Your task to perform on an android device: Open Google Maps Image 0: 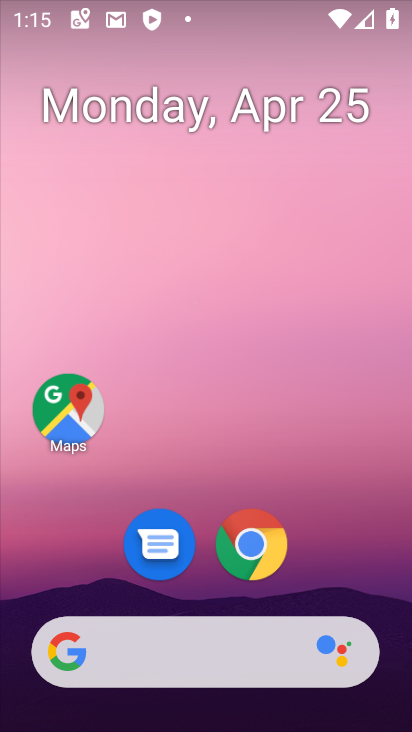
Step 0: click (79, 430)
Your task to perform on an android device: Open Google Maps Image 1: 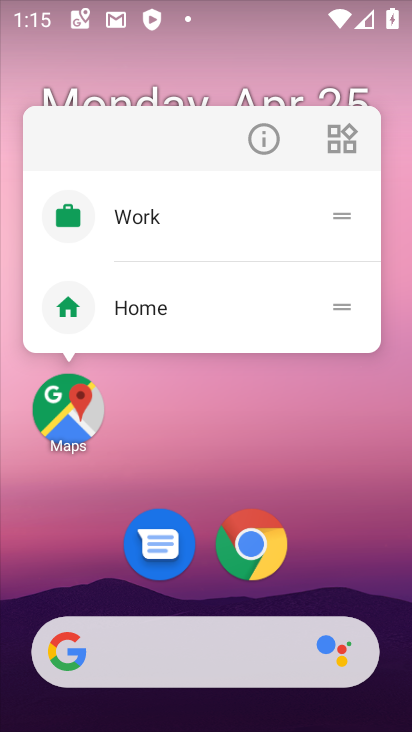
Step 1: click (79, 415)
Your task to perform on an android device: Open Google Maps Image 2: 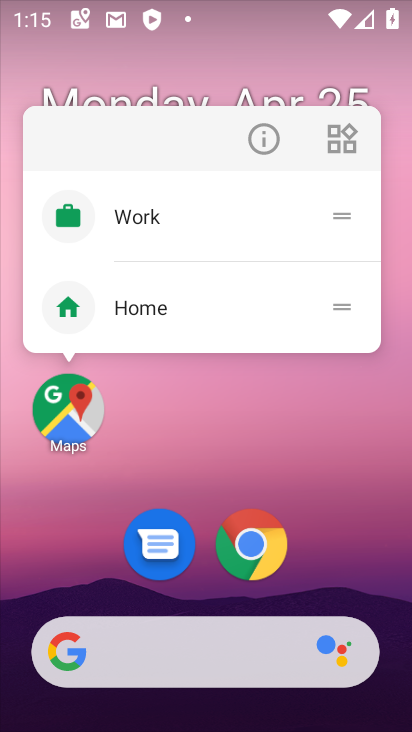
Step 2: click (79, 415)
Your task to perform on an android device: Open Google Maps Image 3: 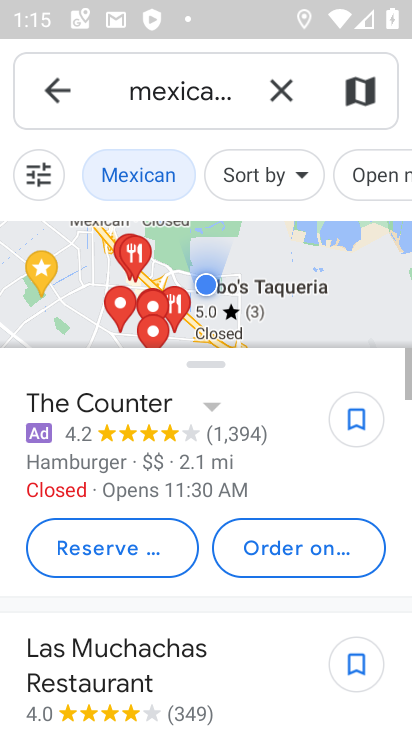
Step 3: click (275, 95)
Your task to perform on an android device: Open Google Maps Image 4: 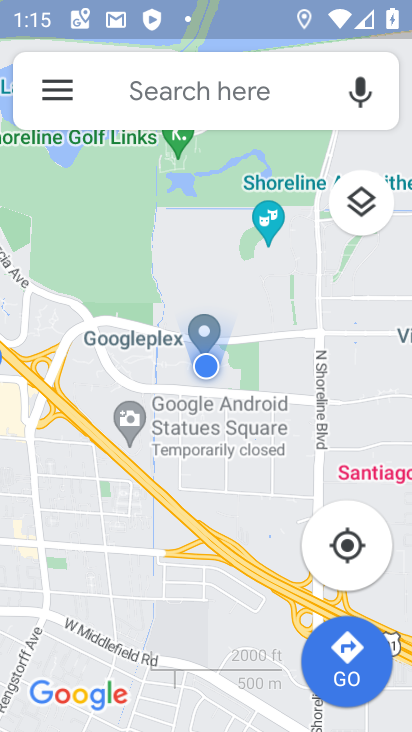
Step 4: task complete